Your task to perform on an android device: open a new tab in the chrome app Image 0: 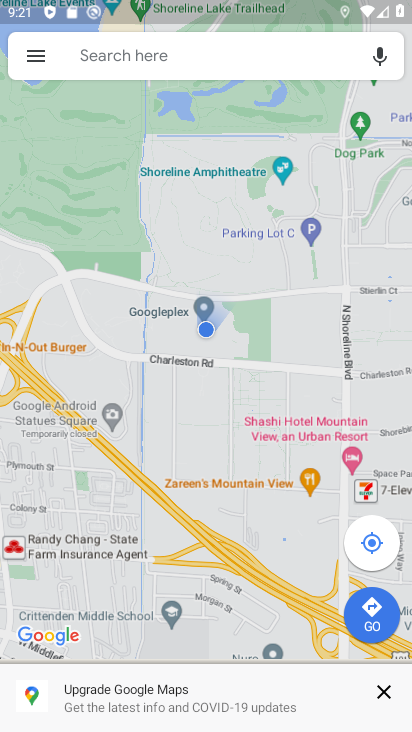
Step 0: press home button
Your task to perform on an android device: open a new tab in the chrome app Image 1: 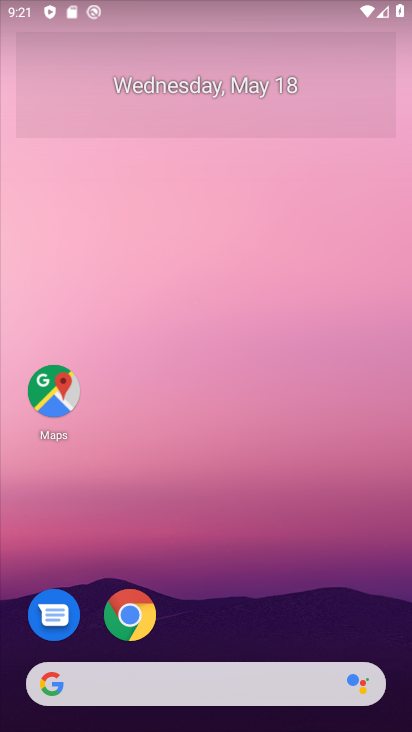
Step 1: click (117, 622)
Your task to perform on an android device: open a new tab in the chrome app Image 2: 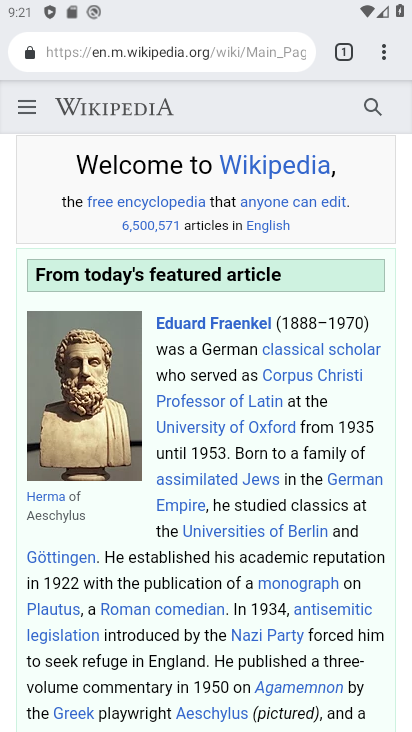
Step 2: click (344, 56)
Your task to perform on an android device: open a new tab in the chrome app Image 3: 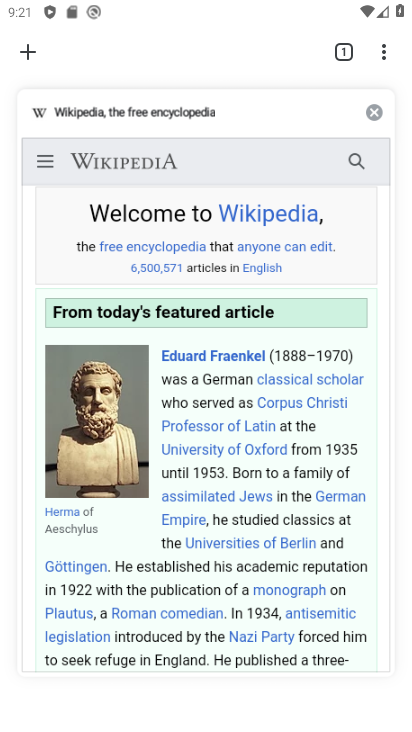
Step 3: click (34, 49)
Your task to perform on an android device: open a new tab in the chrome app Image 4: 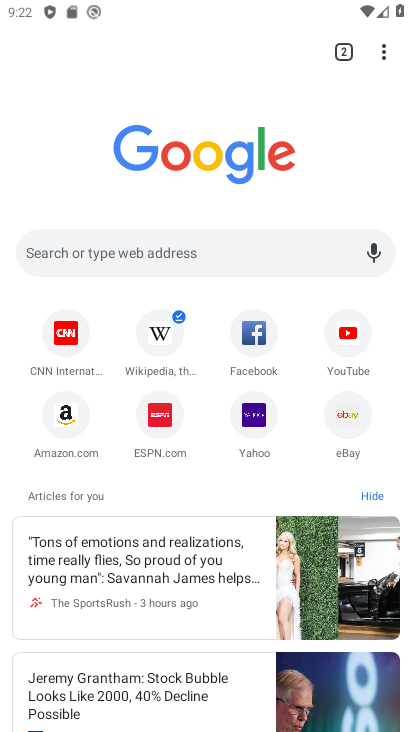
Step 4: task complete